Your task to perform on an android device: When is my next appointment? Image 0: 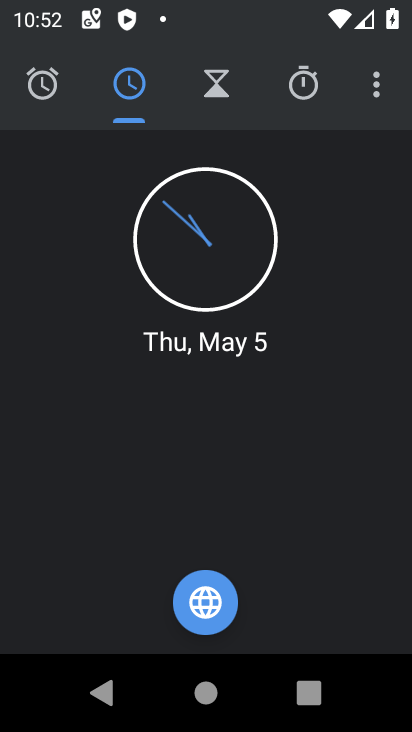
Step 0: press home button
Your task to perform on an android device: When is my next appointment? Image 1: 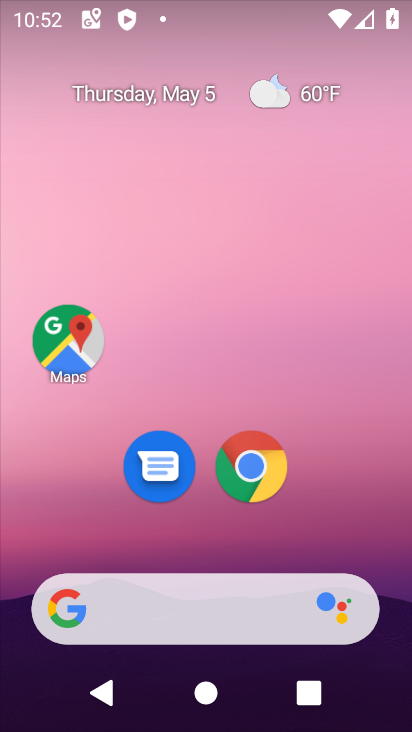
Step 1: drag from (271, 573) to (310, 193)
Your task to perform on an android device: When is my next appointment? Image 2: 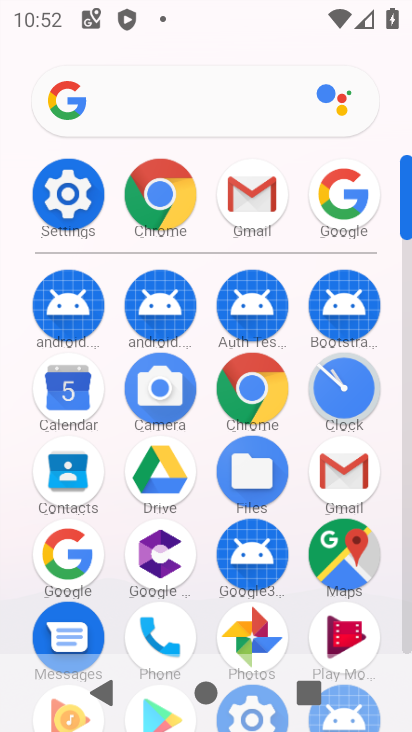
Step 2: click (56, 391)
Your task to perform on an android device: When is my next appointment? Image 3: 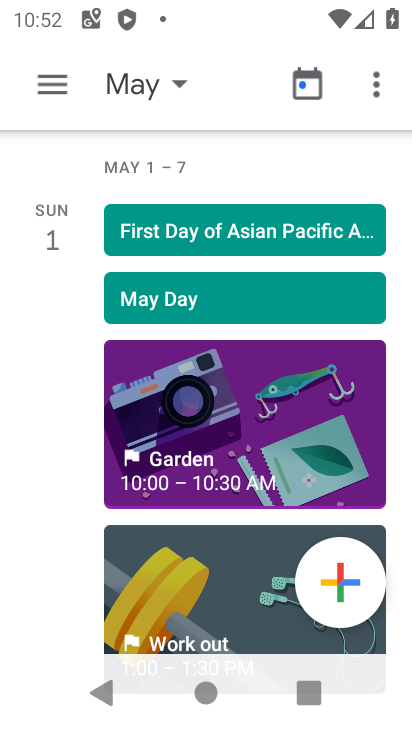
Step 3: click (50, 81)
Your task to perform on an android device: When is my next appointment? Image 4: 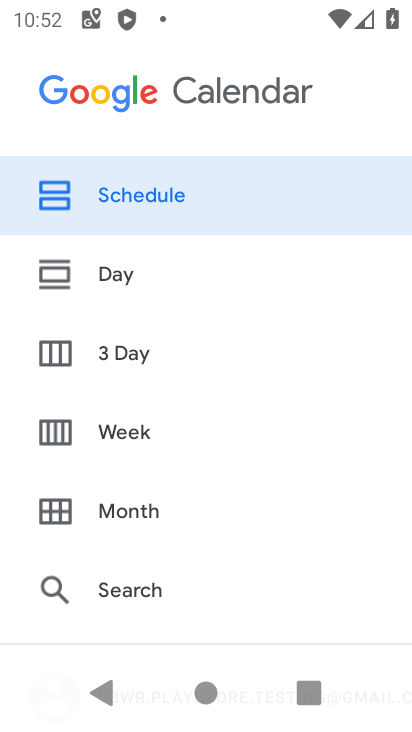
Step 4: click (114, 202)
Your task to perform on an android device: When is my next appointment? Image 5: 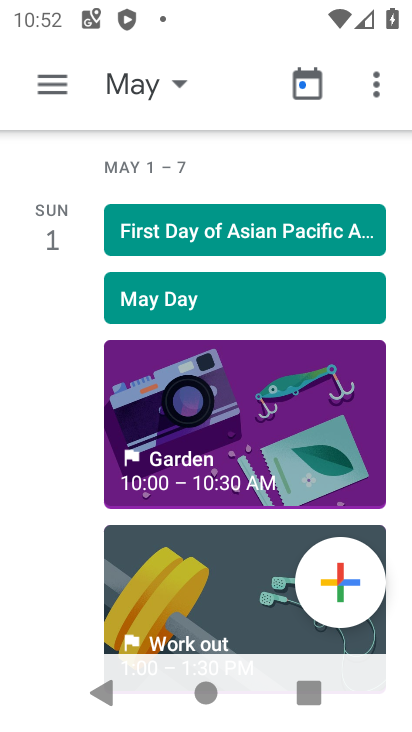
Step 5: task complete